Your task to perform on an android device: toggle sleep mode Image 0: 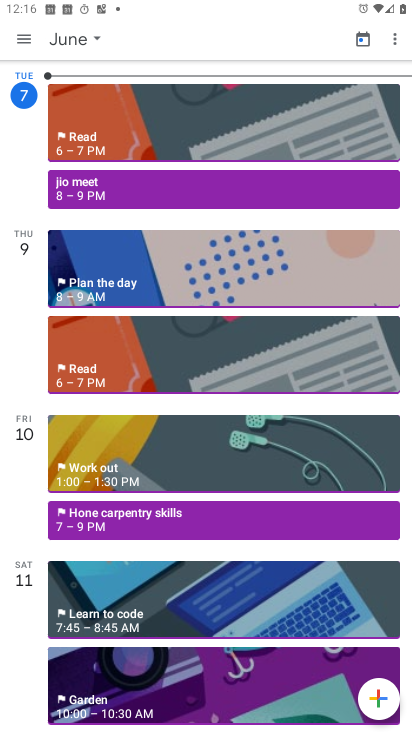
Step 0: press home button
Your task to perform on an android device: toggle sleep mode Image 1: 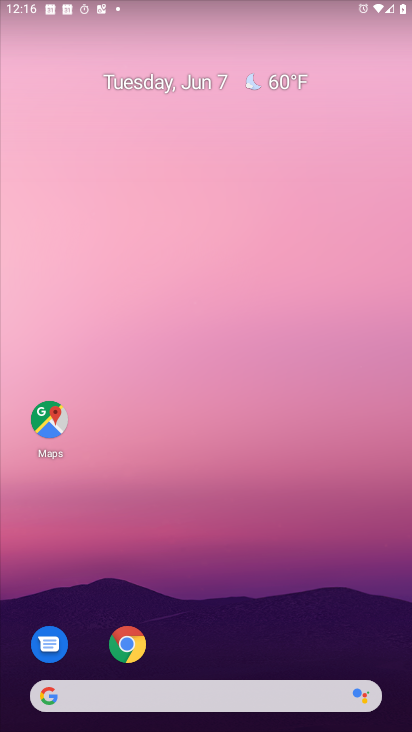
Step 1: task complete